Your task to perform on an android device: check data usage Image 0: 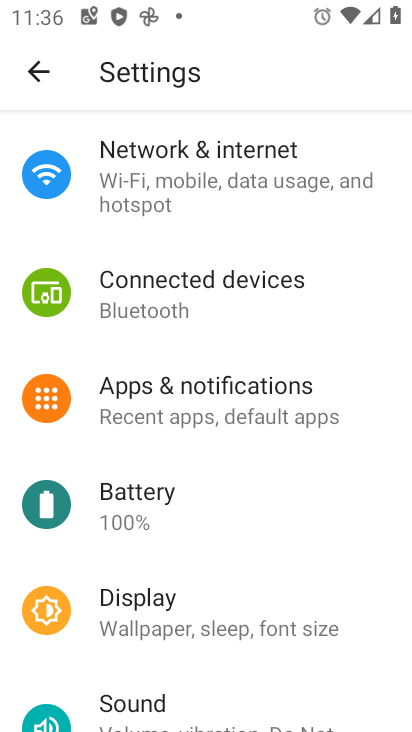
Step 0: drag from (294, 7) to (263, 611)
Your task to perform on an android device: check data usage Image 1: 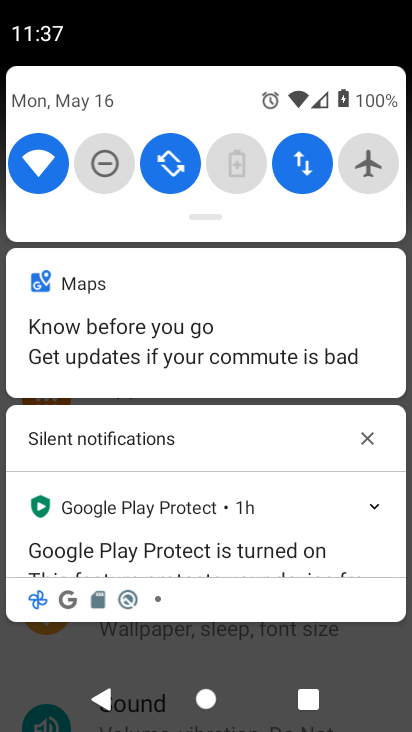
Step 1: click (309, 158)
Your task to perform on an android device: check data usage Image 2: 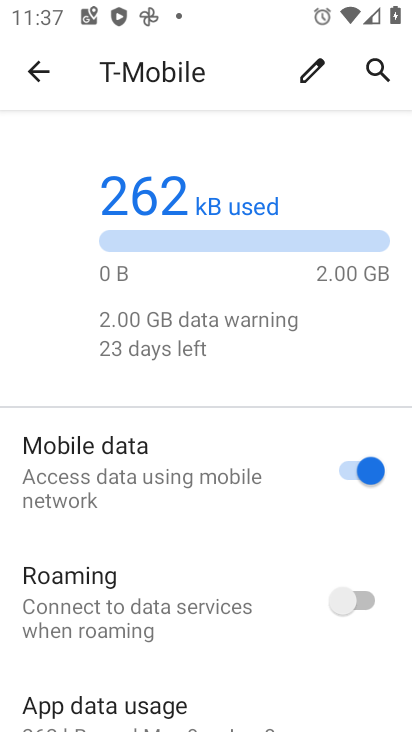
Step 2: task complete